Your task to perform on an android device: read, delete, or share a saved page in the chrome app Image 0: 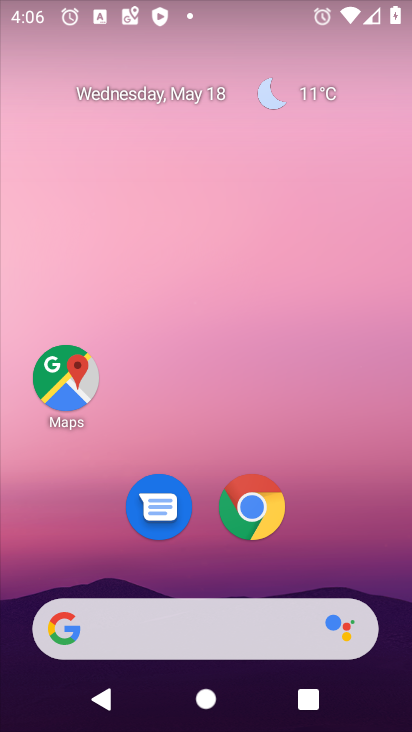
Step 0: click (251, 508)
Your task to perform on an android device: read, delete, or share a saved page in the chrome app Image 1: 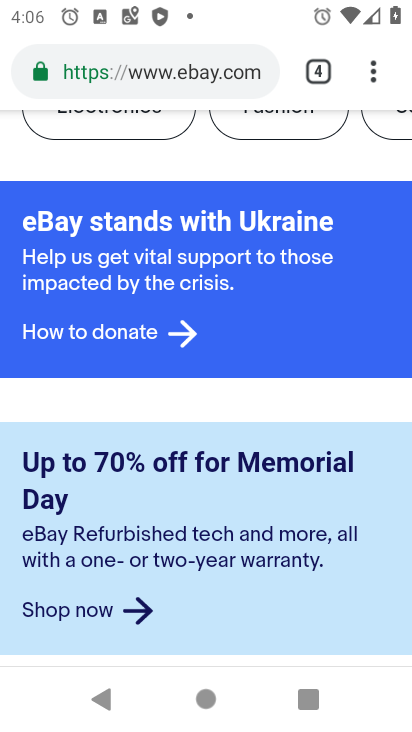
Step 1: click (373, 78)
Your task to perform on an android device: read, delete, or share a saved page in the chrome app Image 2: 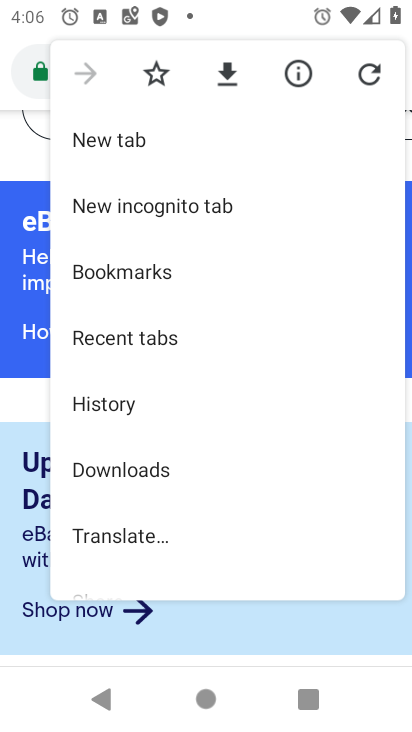
Step 2: drag from (229, 506) to (230, 347)
Your task to perform on an android device: read, delete, or share a saved page in the chrome app Image 3: 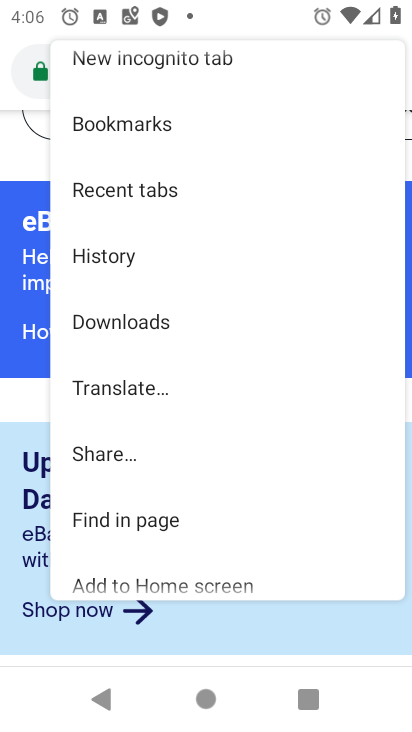
Step 3: click (129, 324)
Your task to perform on an android device: read, delete, or share a saved page in the chrome app Image 4: 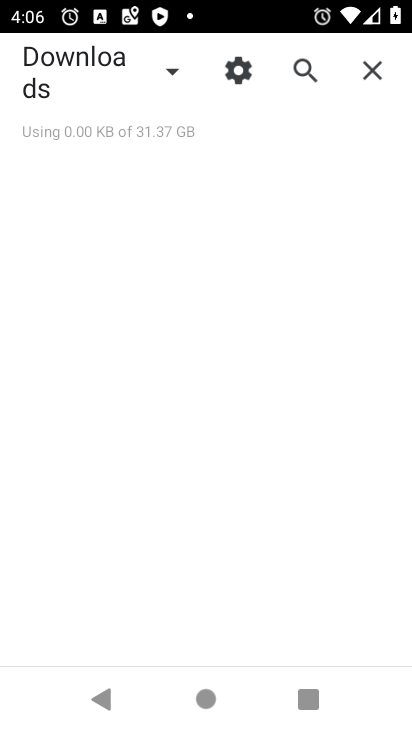
Step 4: click (170, 69)
Your task to perform on an android device: read, delete, or share a saved page in the chrome app Image 5: 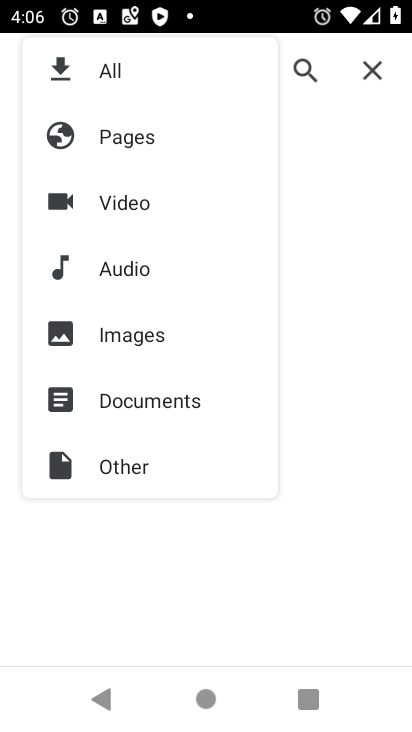
Step 5: click (118, 145)
Your task to perform on an android device: read, delete, or share a saved page in the chrome app Image 6: 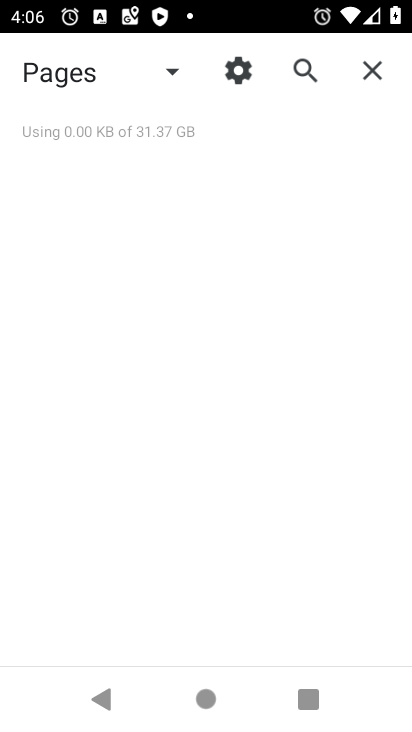
Step 6: task complete